Your task to perform on an android device: Go to Yahoo.com Image 0: 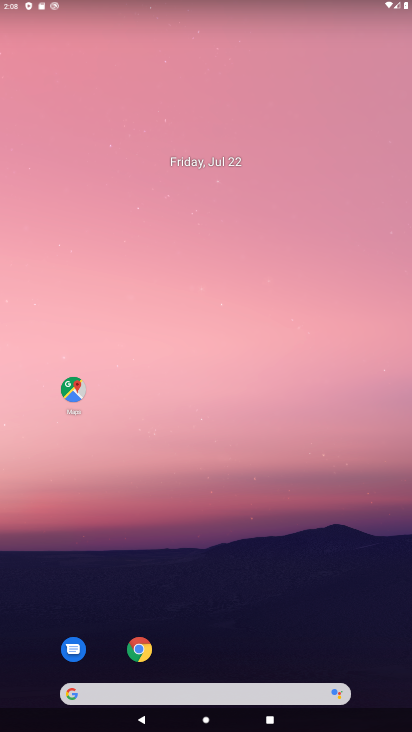
Step 0: drag from (231, 619) to (270, 29)
Your task to perform on an android device: Go to Yahoo.com Image 1: 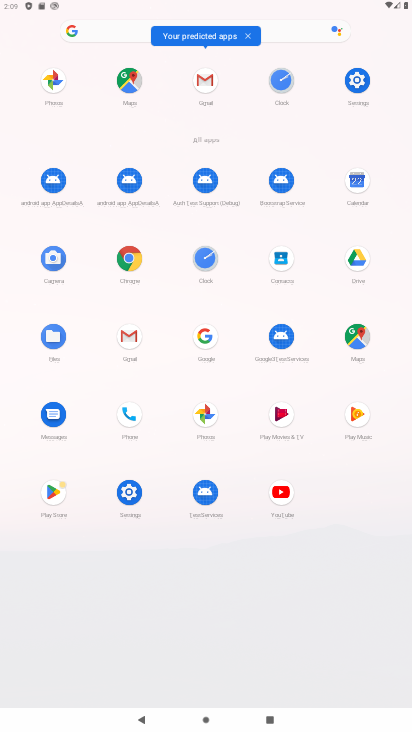
Step 1: click (131, 274)
Your task to perform on an android device: Go to Yahoo.com Image 2: 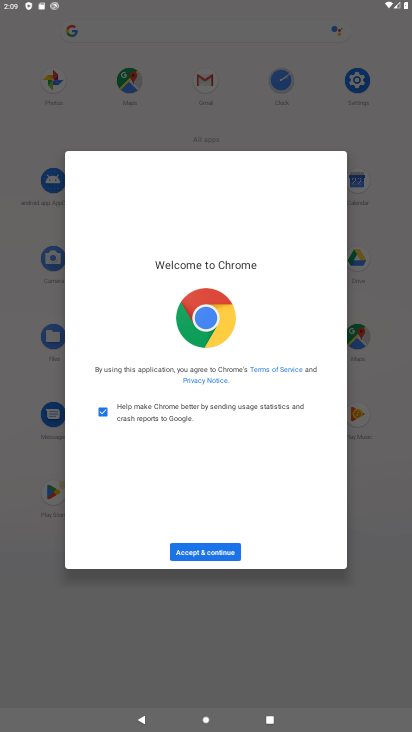
Step 2: click (212, 549)
Your task to perform on an android device: Go to Yahoo.com Image 3: 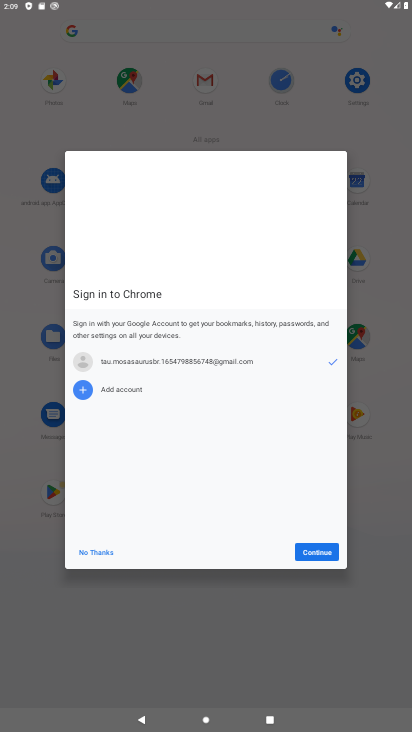
Step 3: click (310, 551)
Your task to perform on an android device: Go to Yahoo.com Image 4: 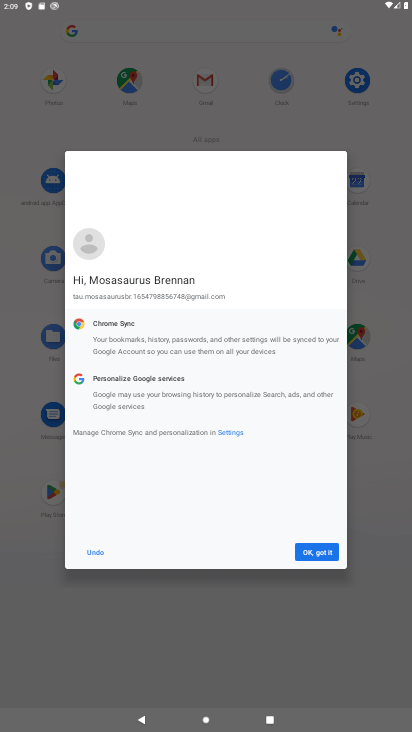
Step 4: click (310, 551)
Your task to perform on an android device: Go to Yahoo.com Image 5: 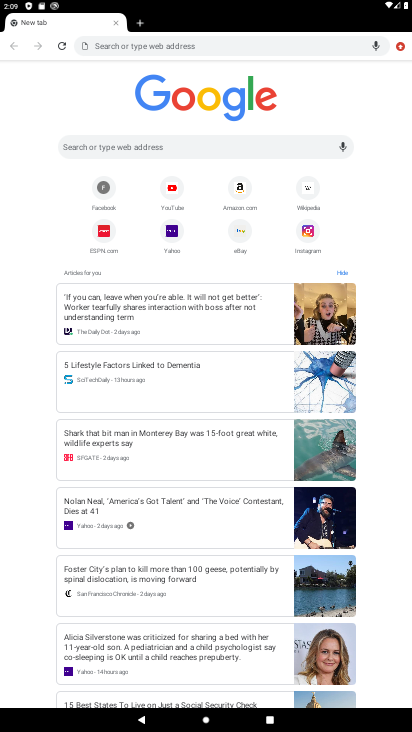
Step 5: click (175, 238)
Your task to perform on an android device: Go to Yahoo.com Image 6: 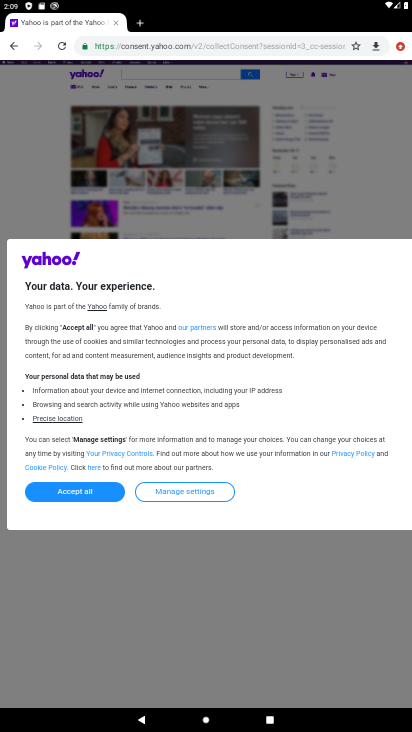
Step 6: task complete